Your task to perform on an android device: toggle sleep mode Image 0: 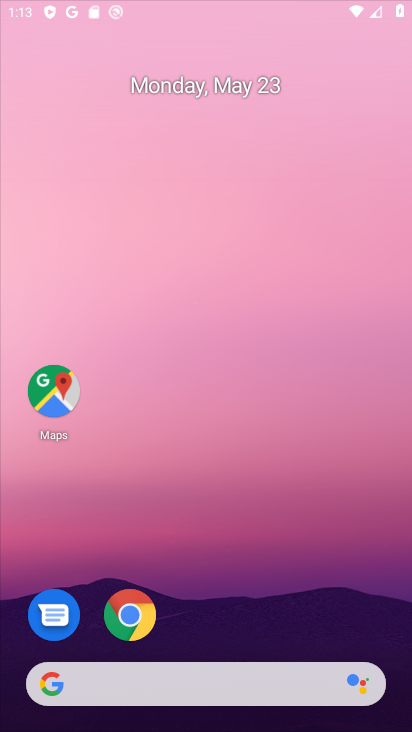
Step 0: click (211, 678)
Your task to perform on an android device: toggle sleep mode Image 1: 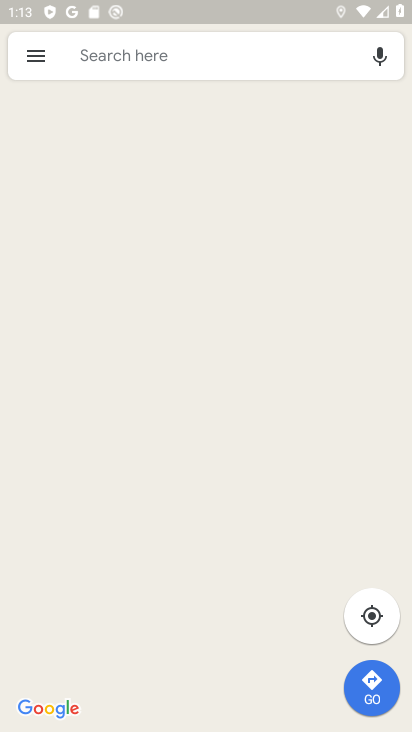
Step 1: press home button
Your task to perform on an android device: toggle sleep mode Image 2: 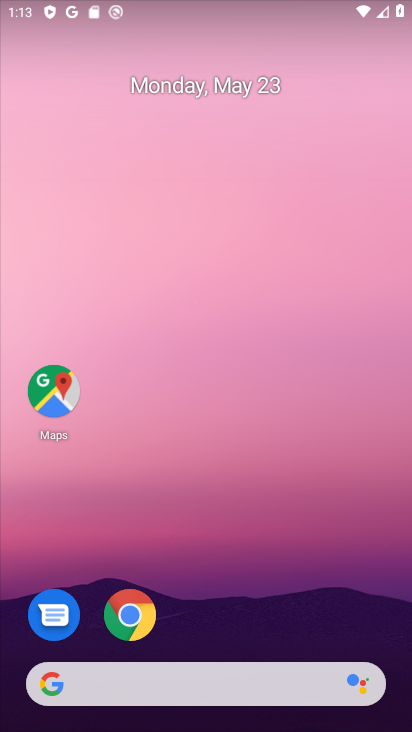
Step 2: drag from (188, 638) to (166, 14)
Your task to perform on an android device: toggle sleep mode Image 3: 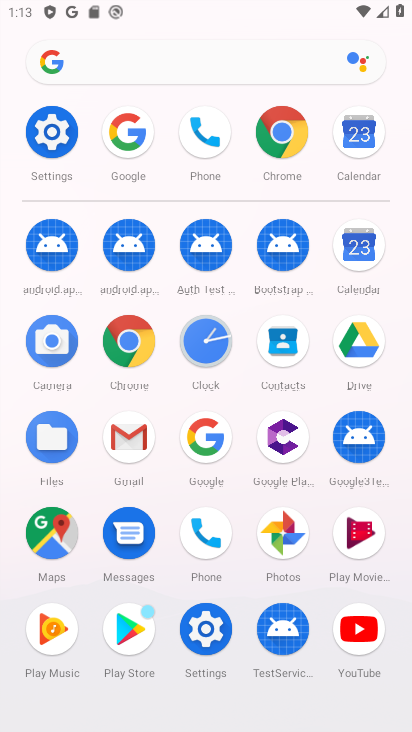
Step 3: click (195, 632)
Your task to perform on an android device: toggle sleep mode Image 4: 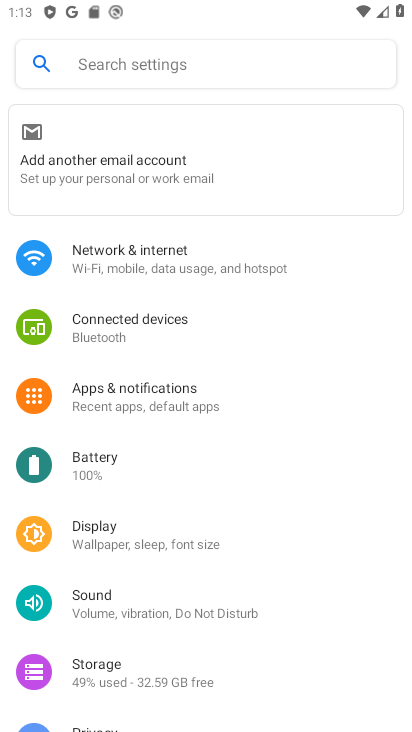
Step 4: drag from (195, 632) to (90, 267)
Your task to perform on an android device: toggle sleep mode Image 5: 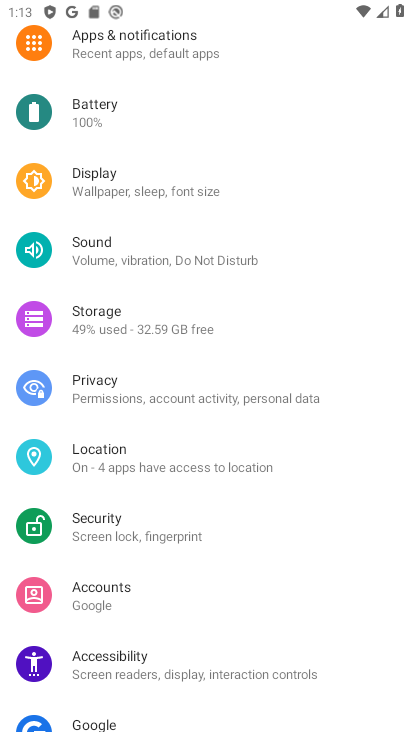
Step 5: click (159, 396)
Your task to perform on an android device: toggle sleep mode Image 6: 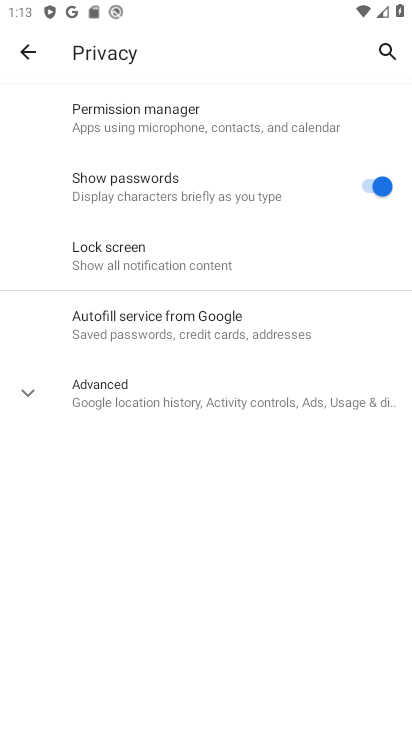
Step 6: task complete